Your task to perform on an android device: Go to settings Image 0: 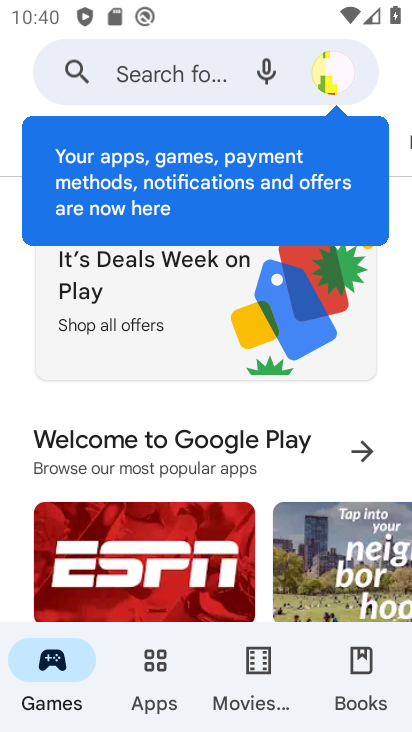
Step 0: press home button
Your task to perform on an android device: Go to settings Image 1: 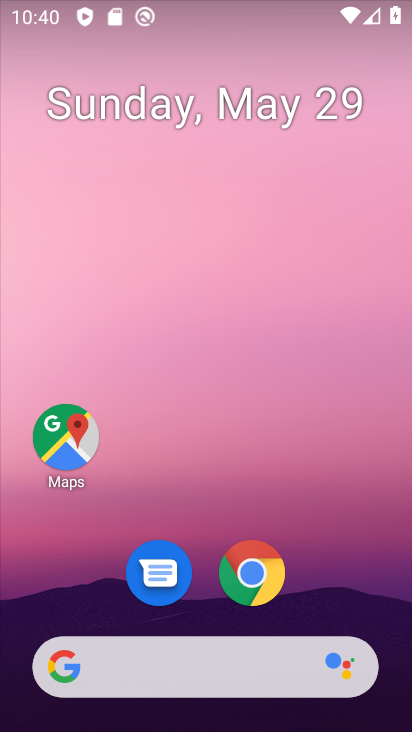
Step 1: drag from (356, 566) to (311, 156)
Your task to perform on an android device: Go to settings Image 2: 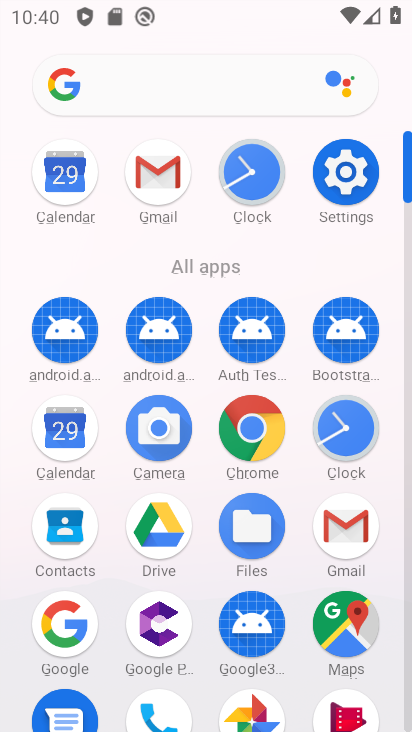
Step 2: click (336, 172)
Your task to perform on an android device: Go to settings Image 3: 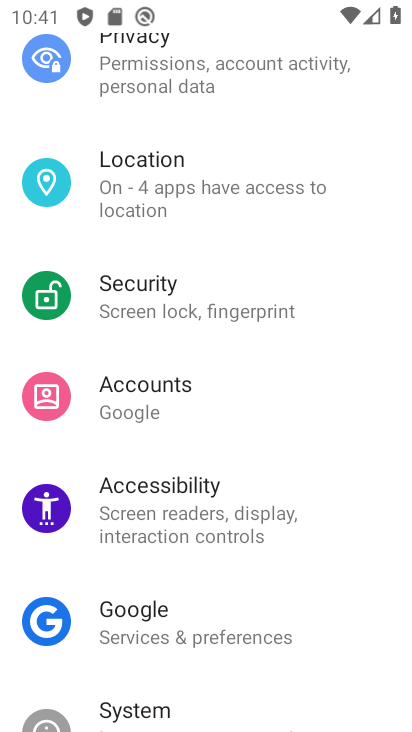
Step 3: task complete